Your task to perform on an android device: snooze an email in the gmail app Image 0: 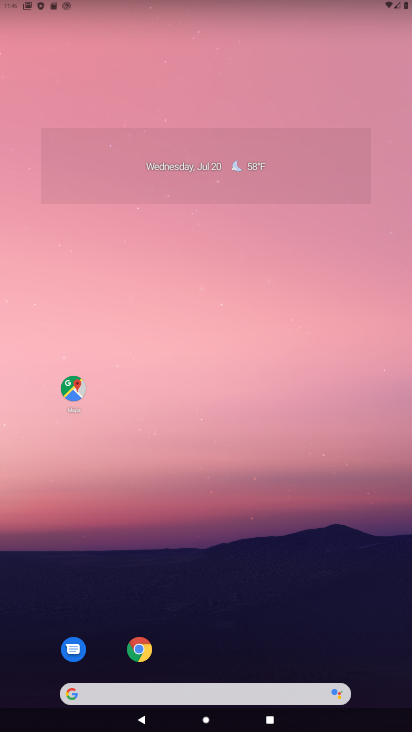
Step 0: drag from (193, 632) to (216, 168)
Your task to perform on an android device: snooze an email in the gmail app Image 1: 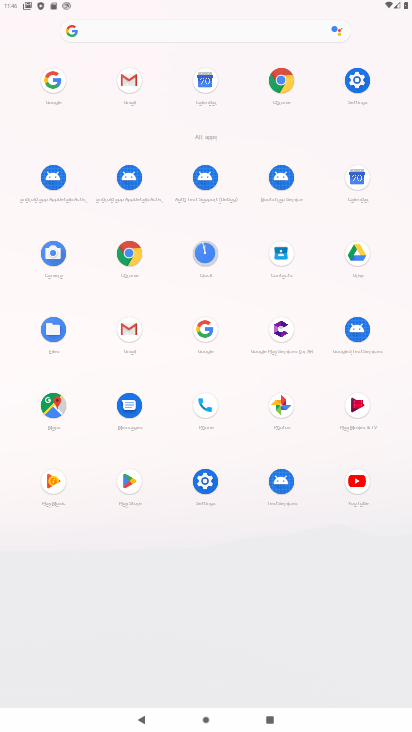
Step 1: click (128, 333)
Your task to perform on an android device: snooze an email in the gmail app Image 2: 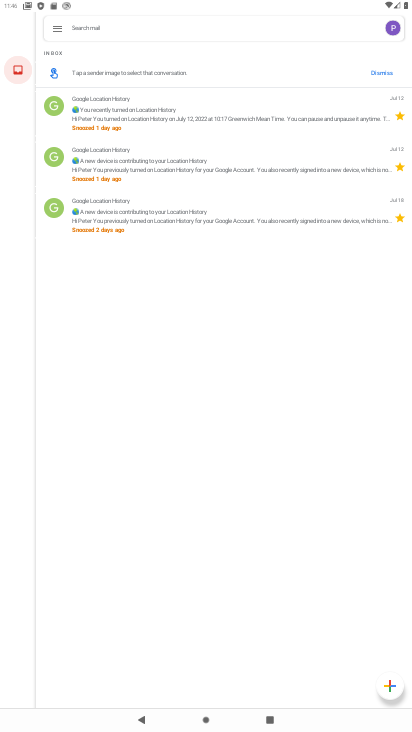
Step 2: click (59, 28)
Your task to perform on an android device: snooze an email in the gmail app Image 3: 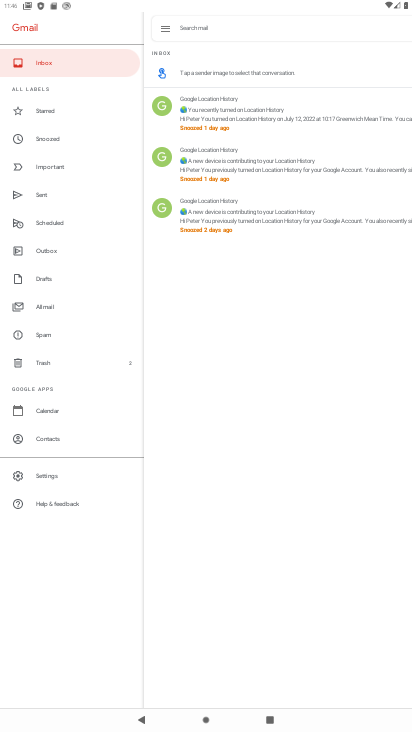
Step 3: click (58, 306)
Your task to perform on an android device: snooze an email in the gmail app Image 4: 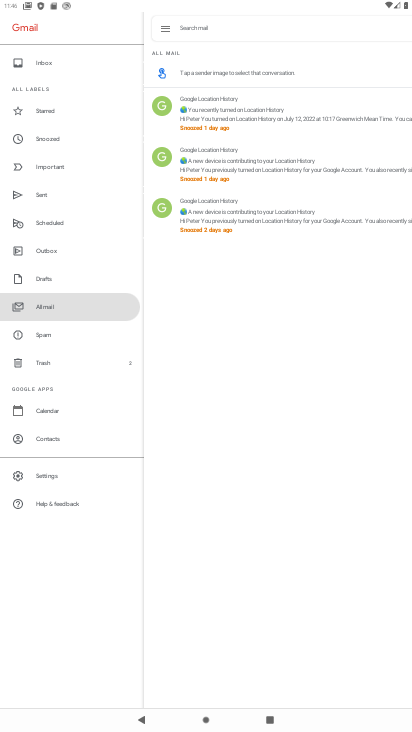
Step 4: task complete